Your task to perform on an android device: Go to Wikipedia Image 0: 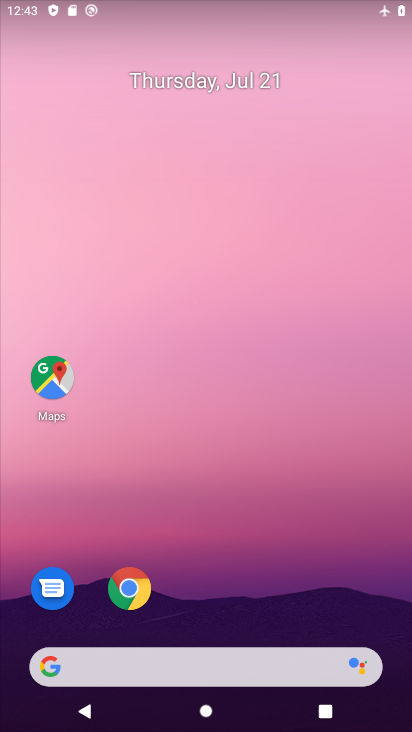
Step 0: click (130, 592)
Your task to perform on an android device: Go to Wikipedia Image 1: 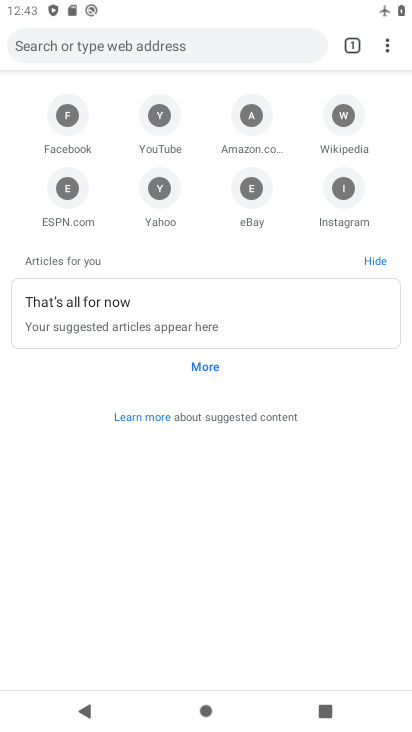
Step 1: click (350, 131)
Your task to perform on an android device: Go to Wikipedia Image 2: 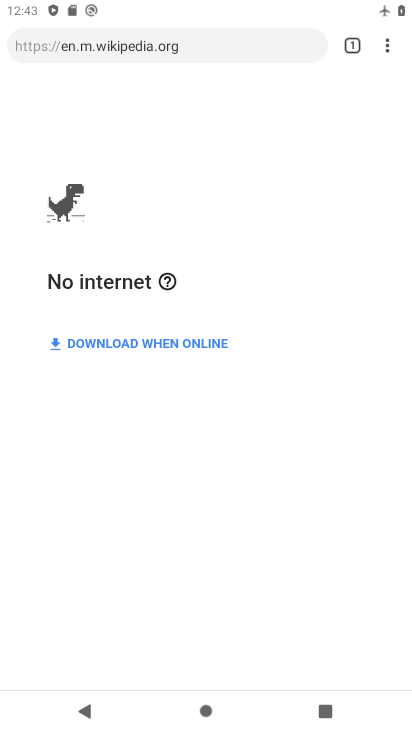
Step 2: task complete